Your task to perform on an android device: turn off sleep mode Image 0: 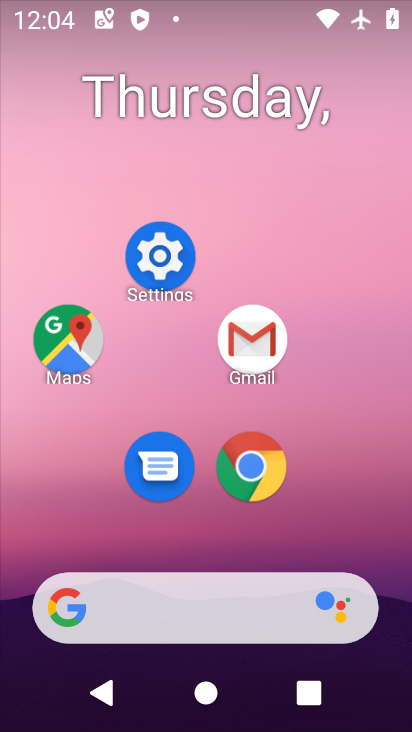
Step 0: drag from (211, 501) to (257, 214)
Your task to perform on an android device: turn off sleep mode Image 1: 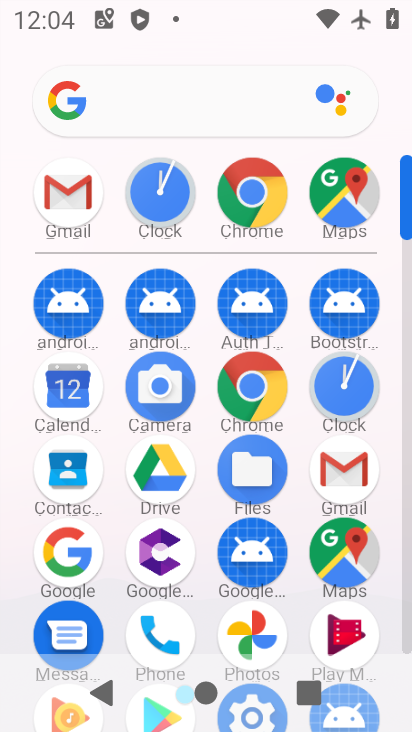
Step 1: drag from (206, 601) to (231, 240)
Your task to perform on an android device: turn off sleep mode Image 2: 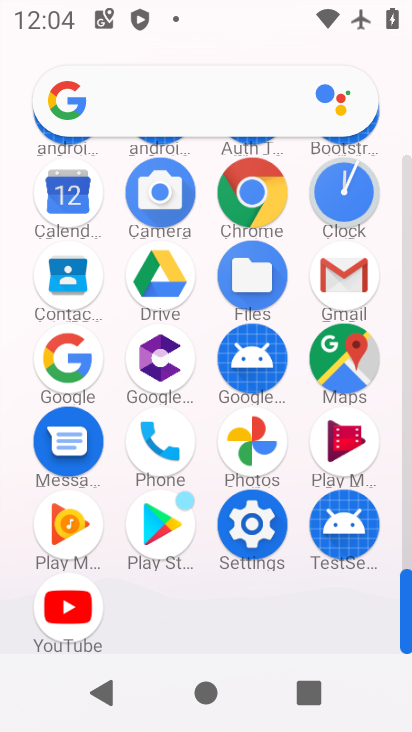
Step 2: click (245, 523)
Your task to perform on an android device: turn off sleep mode Image 3: 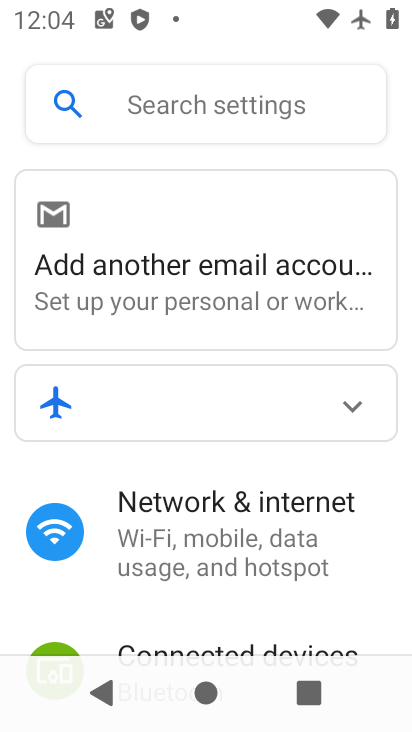
Step 3: drag from (210, 583) to (232, 354)
Your task to perform on an android device: turn off sleep mode Image 4: 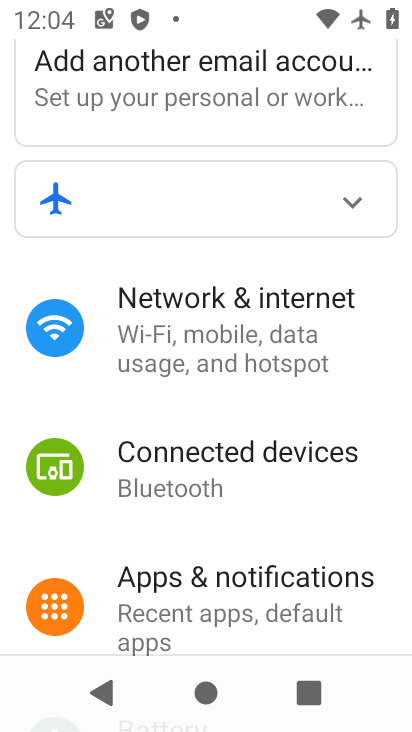
Step 4: drag from (244, 564) to (255, 339)
Your task to perform on an android device: turn off sleep mode Image 5: 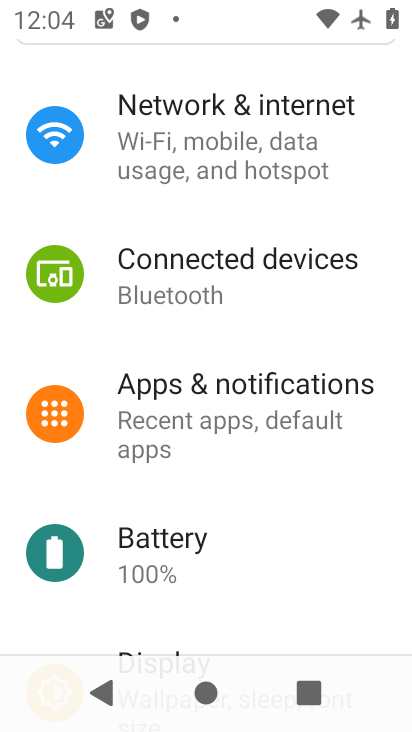
Step 5: drag from (247, 394) to (251, 145)
Your task to perform on an android device: turn off sleep mode Image 6: 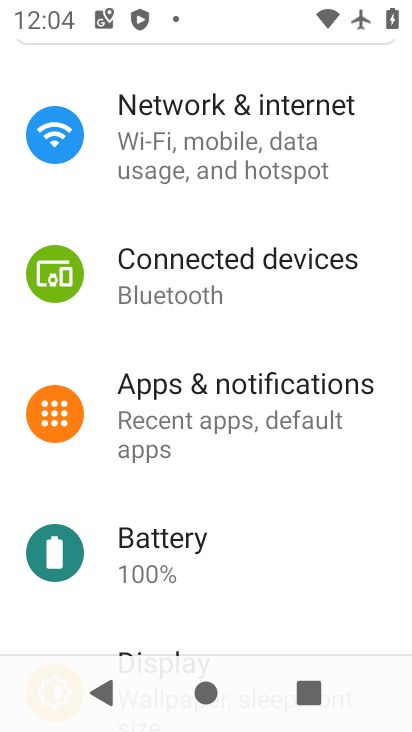
Step 6: drag from (232, 500) to (261, 132)
Your task to perform on an android device: turn off sleep mode Image 7: 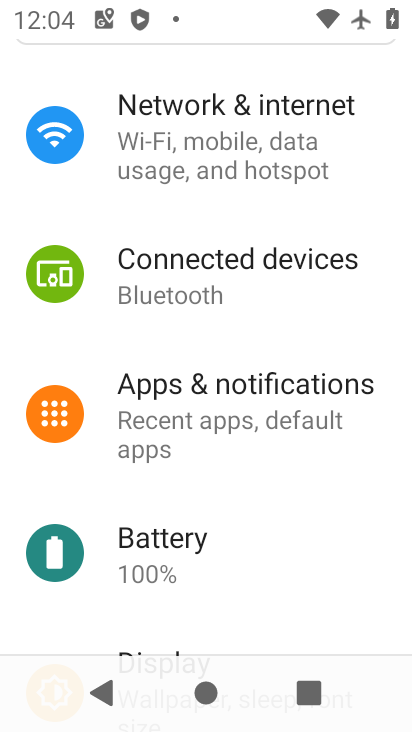
Step 7: click (229, 262)
Your task to perform on an android device: turn off sleep mode Image 8: 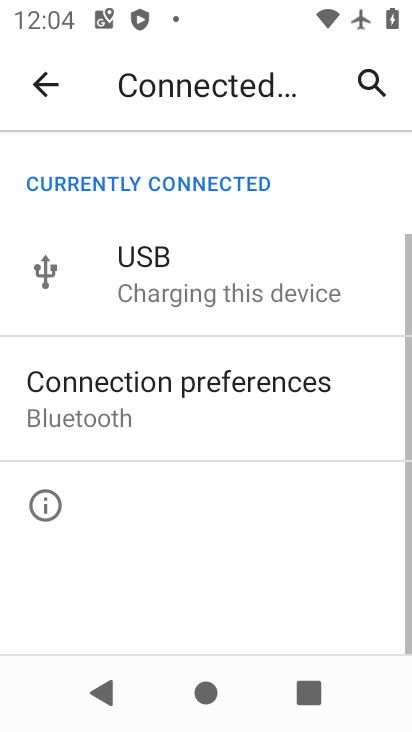
Step 8: drag from (218, 583) to (251, 169)
Your task to perform on an android device: turn off sleep mode Image 9: 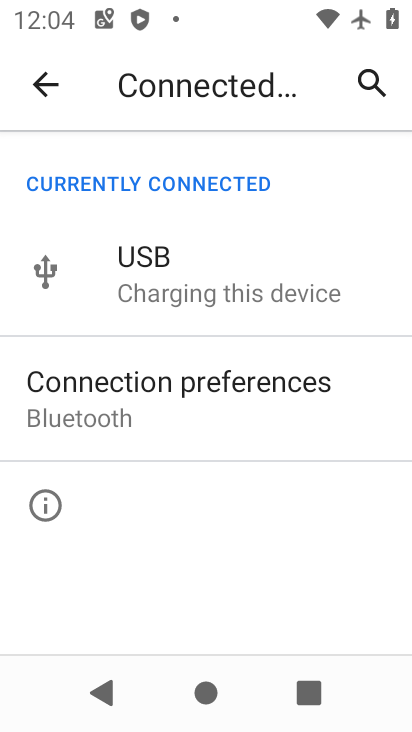
Step 9: click (45, 68)
Your task to perform on an android device: turn off sleep mode Image 10: 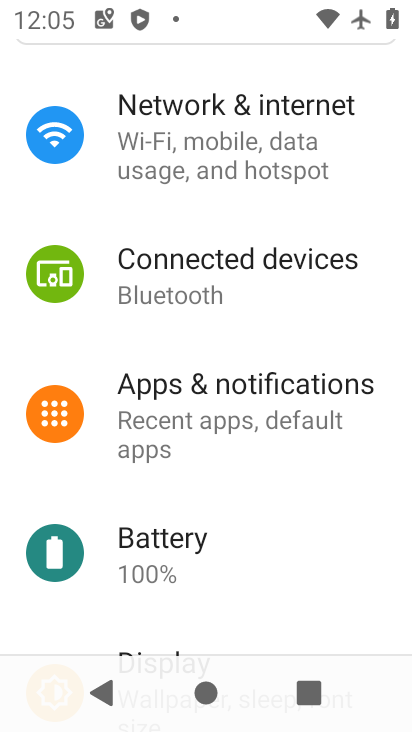
Step 10: drag from (182, 575) to (192, 450)
Your task to perform on an android device: turn off sleep mode Image 11: 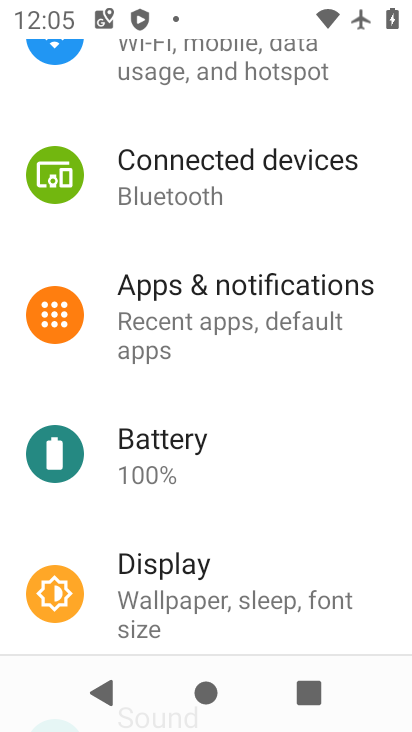
Step 11: drag from (212, 556) to (216, 138)
Your task to perform on an android device: turn off sleep mode Image 12: 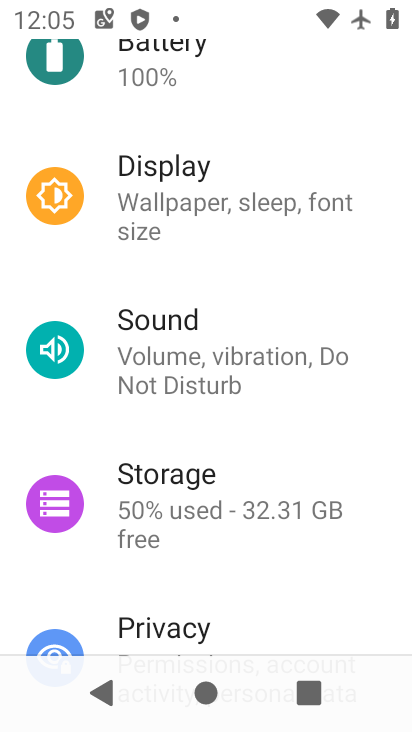
Step 12: drag from (236, 607) to (266, 209)
Your task to perform on an android device: turn off sleep mode Image 13: 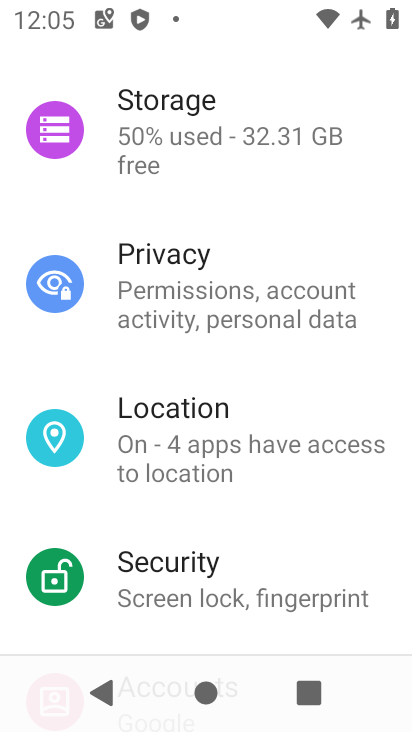
Step 13: drag from (266, 204) to (288, 576)
Your task to perform on an android device: turn off sleep mode Image 14: 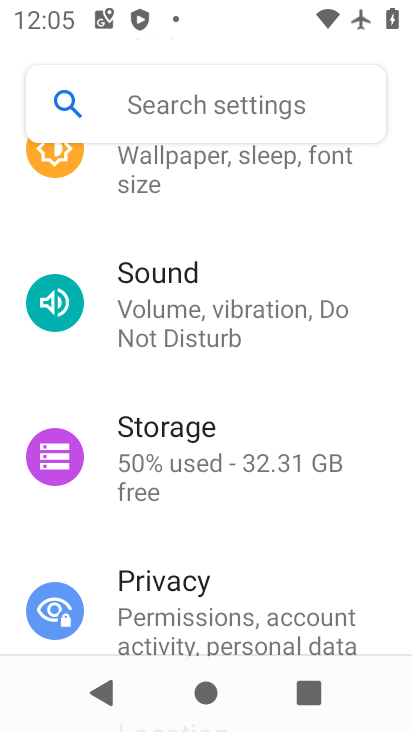
Step 14: drag from (236, 238) to (258, 443)
Your task to perform on an android device: turn off sleep mode Image 15: 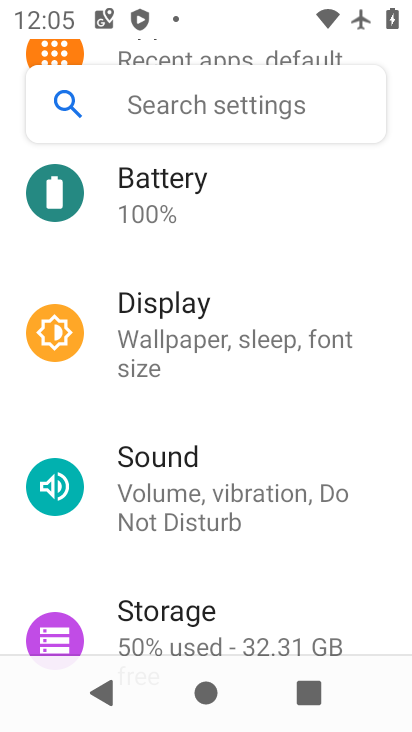
Step 15: click (172, 313)
Your task to perform on an android device: turn off sleep mode Image 16: 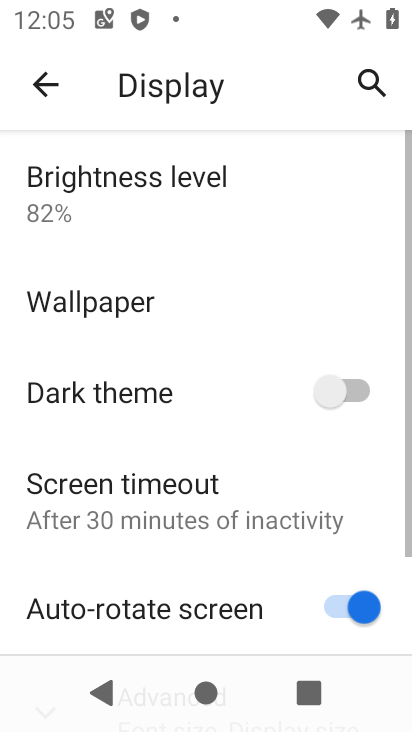
Step 16: drag from (280, 494) to (286, 203)
Your task to perform on an android device: turn off sleep mode Image 17: 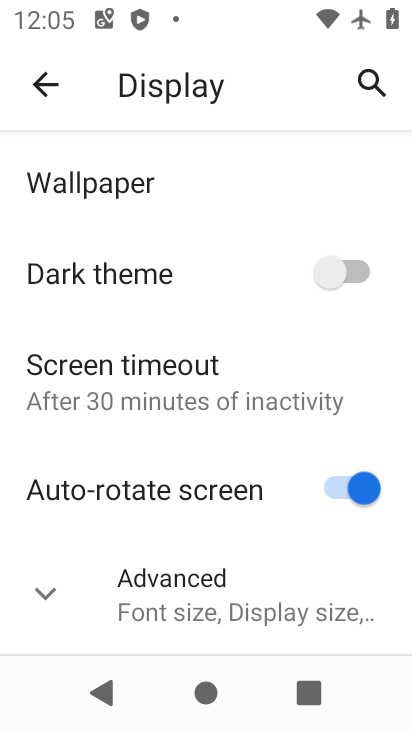
Step 17: drag from (200, 582) to (246, 147)
Your task to perform on an android device: turn off sleep mode Image 18: 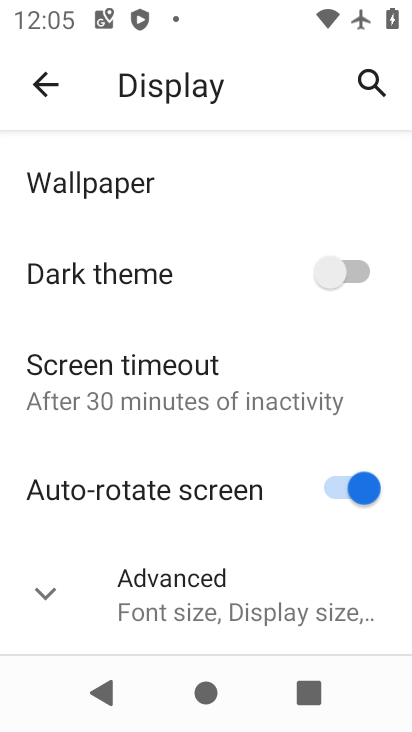
Step 18: click (192, 582)
Your task to perform on an android device: turn off sleep mode Image 19: 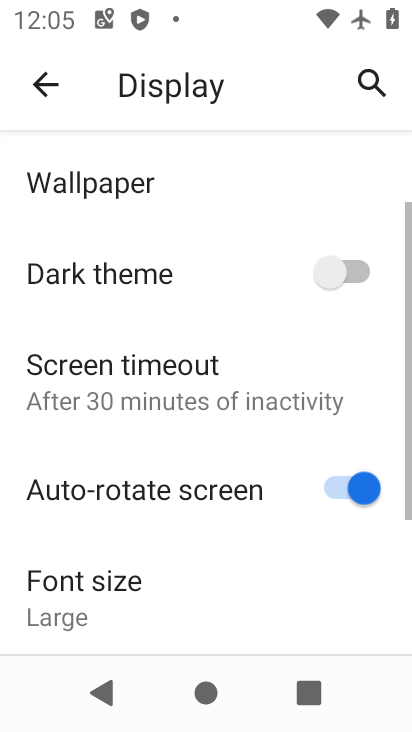
Step 19: click (178, 422)
Your task to perform on an android device: turn off sleep mode Image 20: 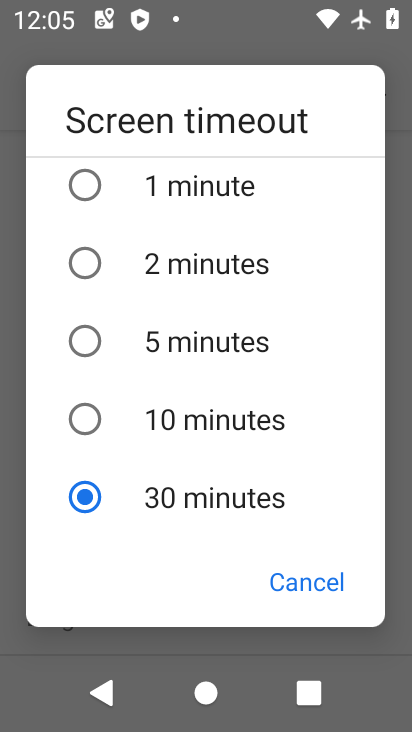
Step 20: task complete